Your task to perform on an android device: Open maps Image 0: 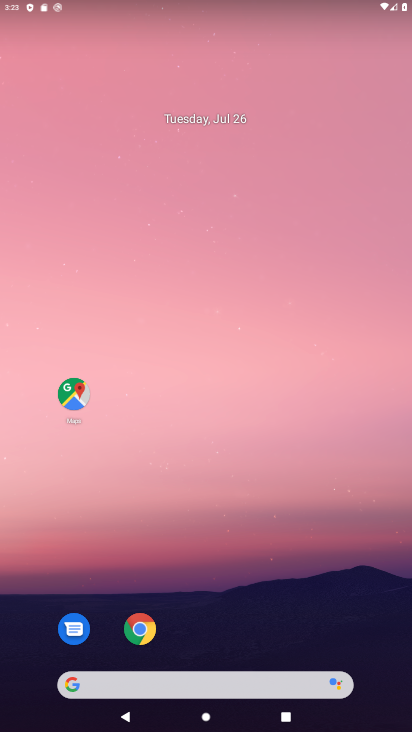
Step 0: click (85, 398)
Your task to perform on an android device: Open maps Image 1: 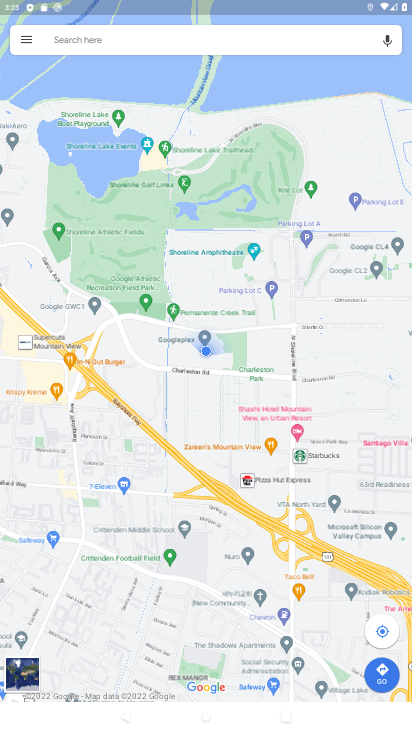
Step 1: task complete